Your task to perform on an android device: Open eBay Image 0: 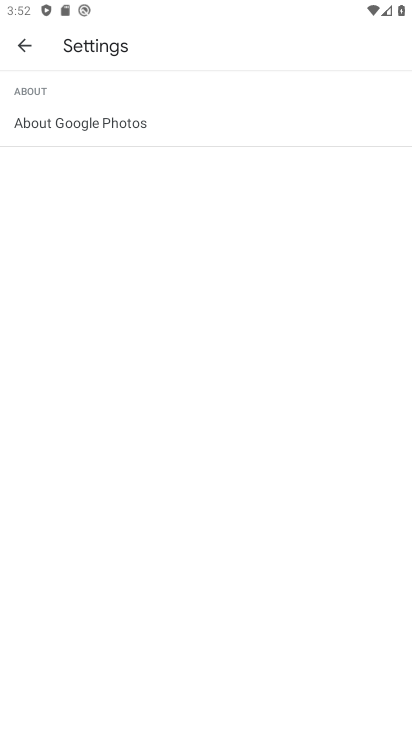
Step 0: press home button
Your task to perform on an android device: Open eBay Image 1: 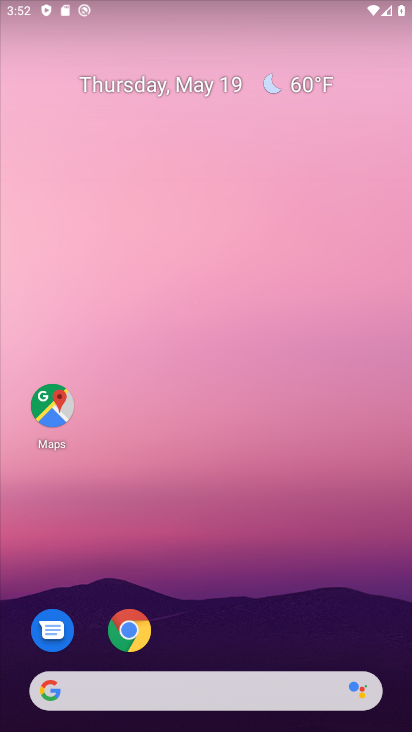
Step 1: drag from (222, 726) to (222, 183)
Your task to perform on an android device: Open eBay Image 2: 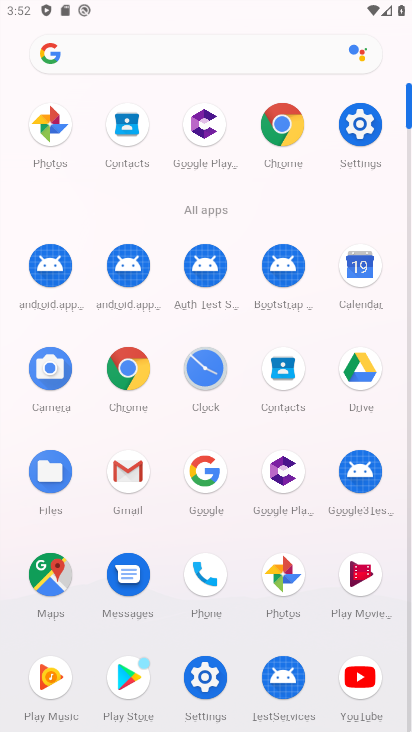
Step 2: click (129, 368)
Your task to perform on an android device: Open eBay Image 3: 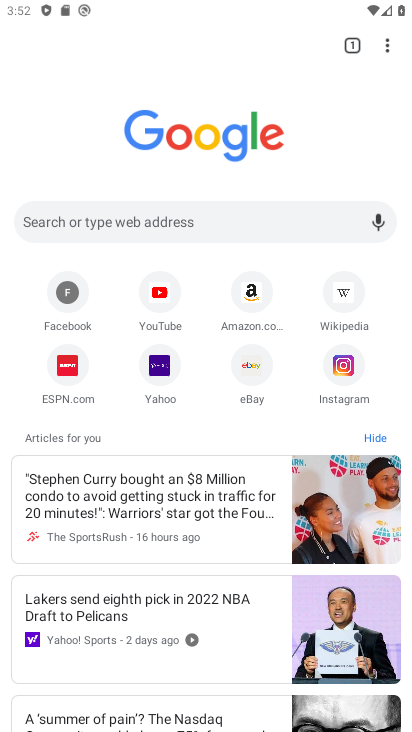
Step 3: click (250, 360)
Your task to perform on an android device: Open eBay Image 4: 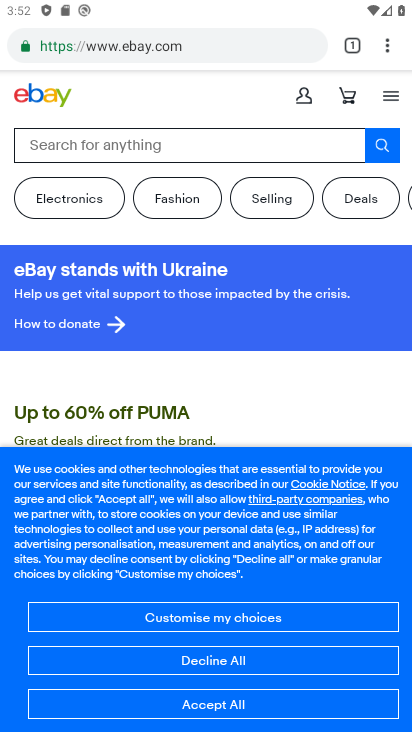
Step 4: task complete